Your task to perform on an android device: empty trash in google photos Image 0: 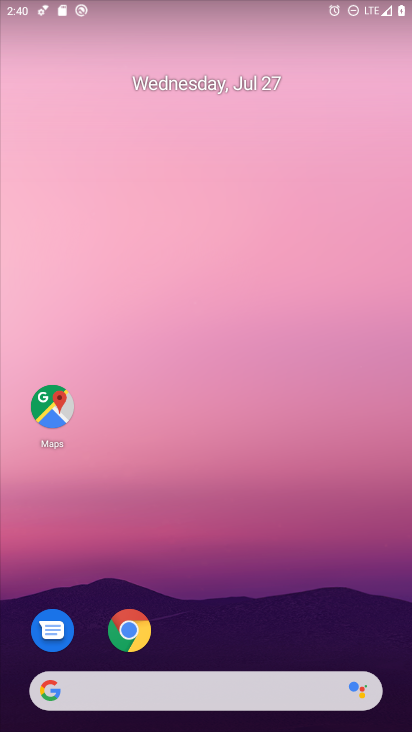
Step 0: drag from (383, 642) to (336, 137)
Your task to perform on an android device: empty trash in google photos Image 1: 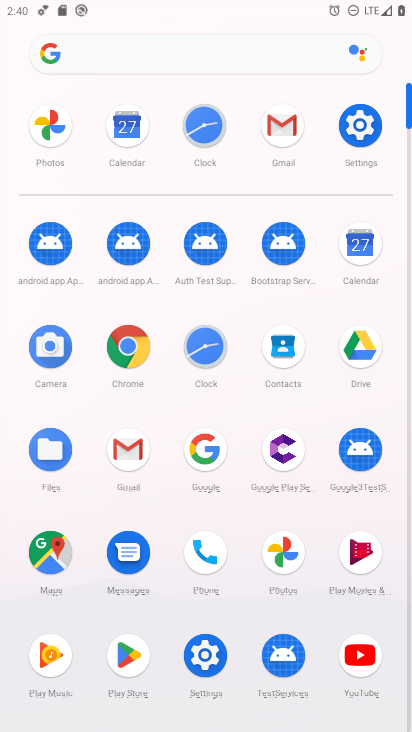
Step 1: click (284, 551)
Your task to perform on an android device: empty trash in google photos Image 2: 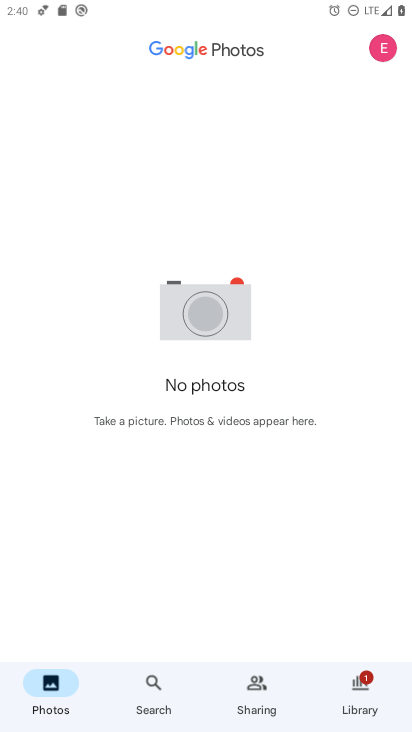
Step 2: click (364, 682)
Your task to perform on an android device: empty trash in google photos Image 3: 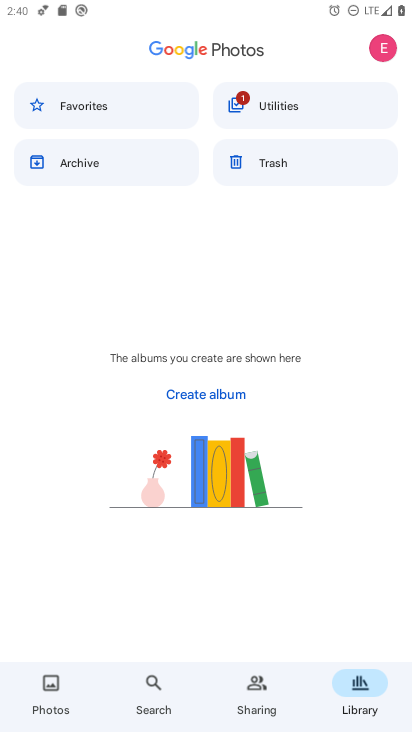
Step 3: click (262, 157)
Your task to perform on an android device: empty trash in google photos Image 4: 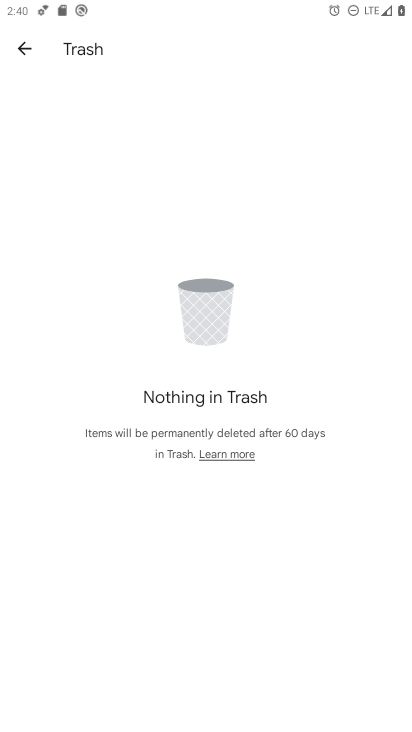
Step 4: task complete